Your task to perform on an android device: turn off wifi Image 0: 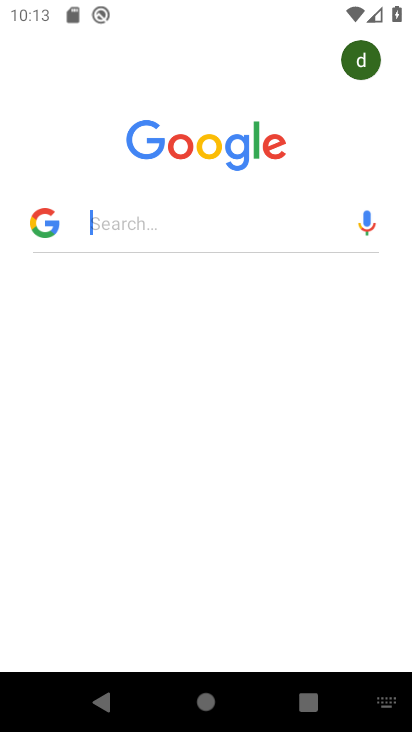
Step 0: press home button
Your task to perform on an android device: turn off wifi Image 1: 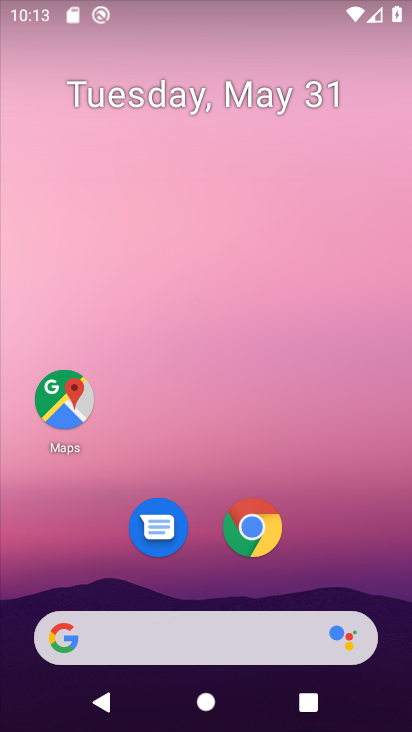
Step 1: drag from (376, 589) to (407, 344)
Your task to perform on an android device: turn off wifi Image 2: 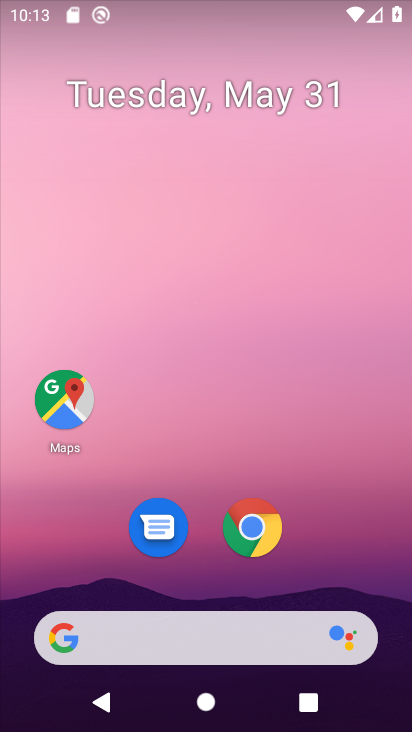
Step 2: drag from (370, 581) to (363, 0)
Your task to perform on an android device: turn off wifi Image 3: 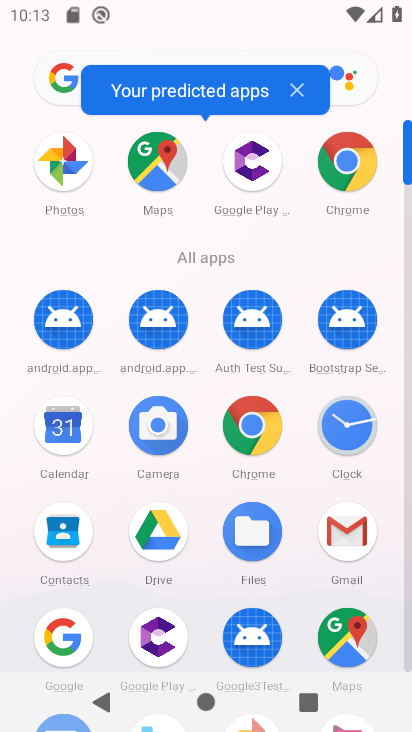
Step 3: click (404, 501)
Your task to perform on an android device: turn off wifi Image 4: 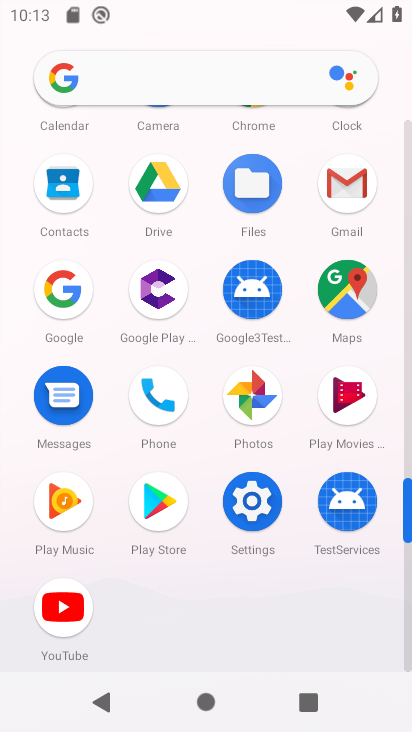
Step 4: click (245, 514)
Your task to perform on an android device: turn off wifi Image 5: 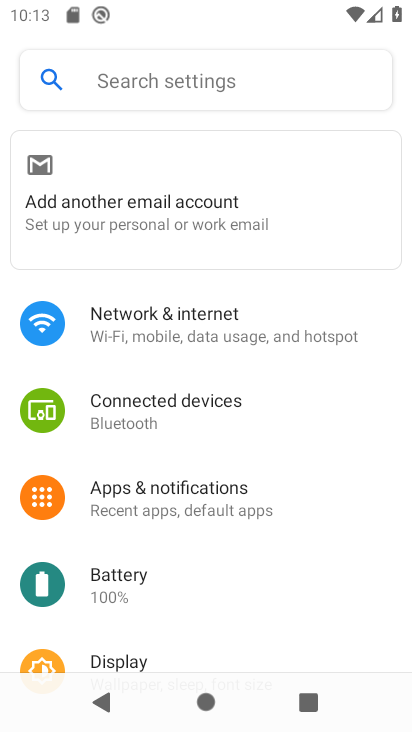
Step 5: click (194, 330)
Your task to perform on an android device: turn off wifi Image 6: 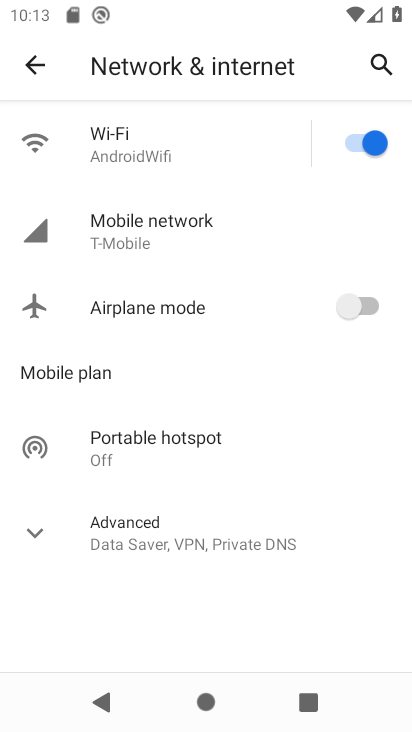
Step 6: click (367, 148)
Your task to perform on an android device: turn off wifi Image 7: 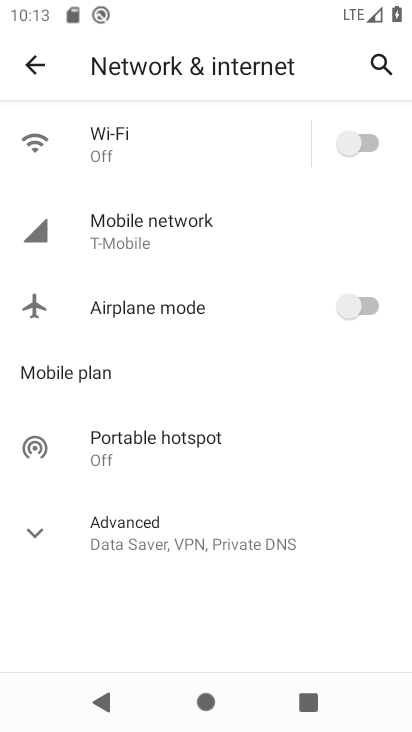
Step 7: task complete